Your task to perform on an android device: turn on bluetooth scan Image 0: 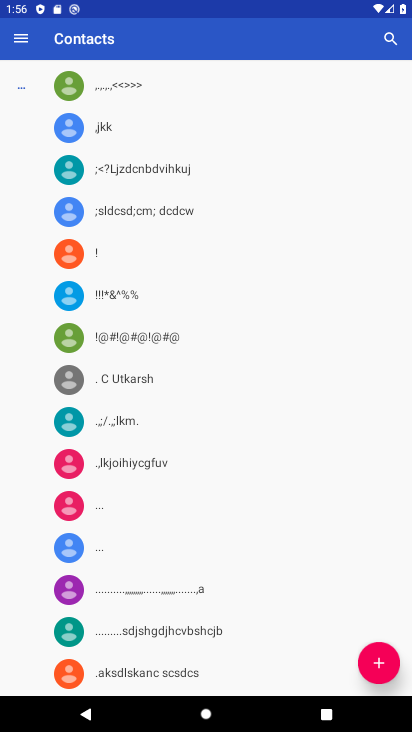
Step 0: press home button
Your task to perform on an android device: turn on bluetooth scan Image 1: 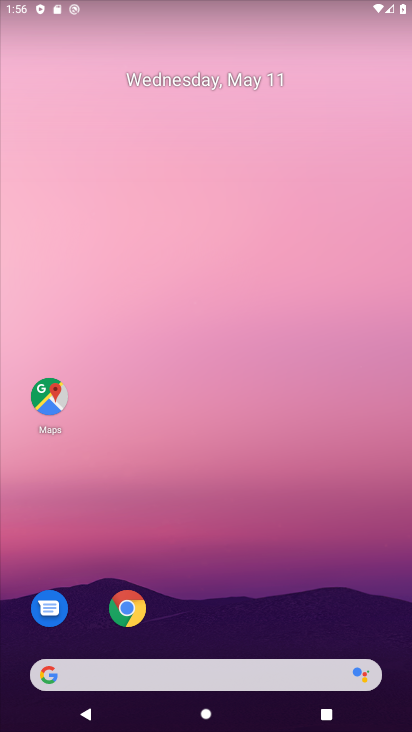
Step 1: drag from (266, 607) to (324, 190)
Your task to perform on an android device: turn on bluetooth scan Image 2: 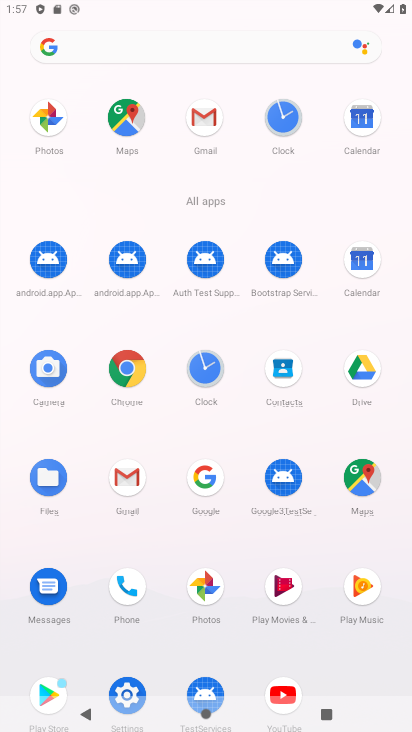
Step 2: click (130, 686)
Your task to perform on an android device: turn on bluetooth scan Image 3: 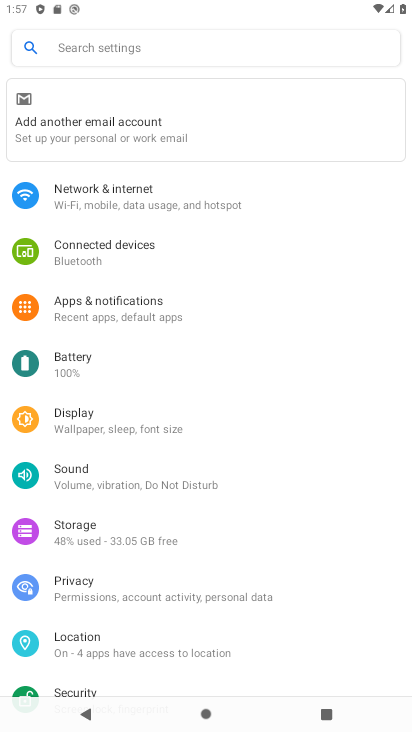
Step 3: click (136, 642)
Your task to perform on an android device: turn on bluetooth scan Image 4: 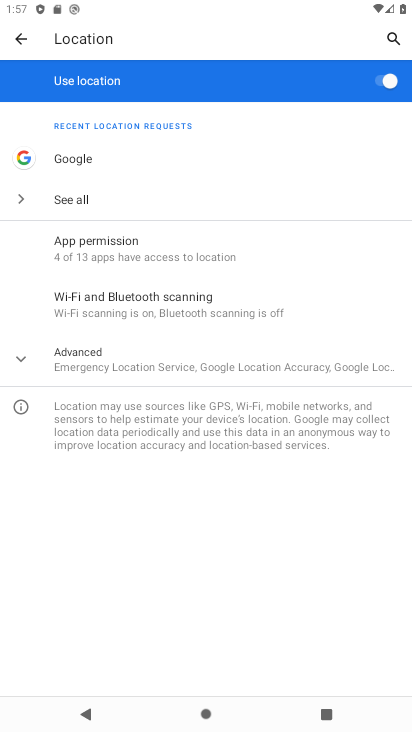
Step 4: click (131, 306)
Your task to perform on an android device: turn on bluetooth scan Image 5: 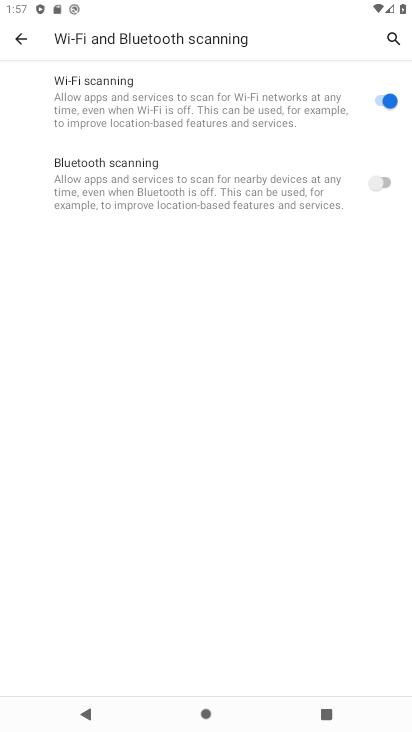
Step 5: click (386, 183)
Your task to perform on an android device: turn on bluetooth scan Image 6: 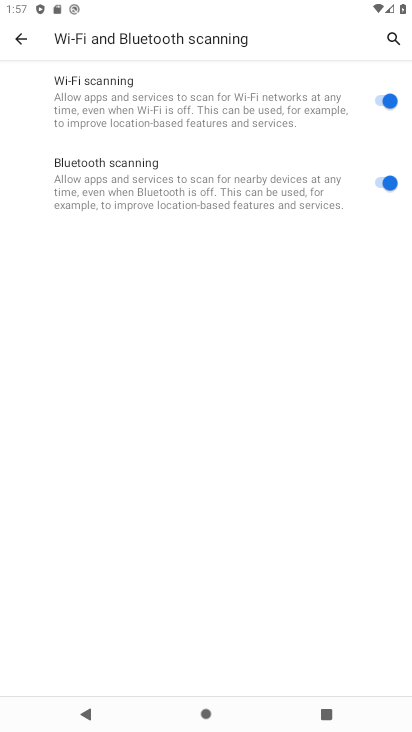
Step 6: task complete